Your task to perform on an android device: star an email in the gmail app Image 0: 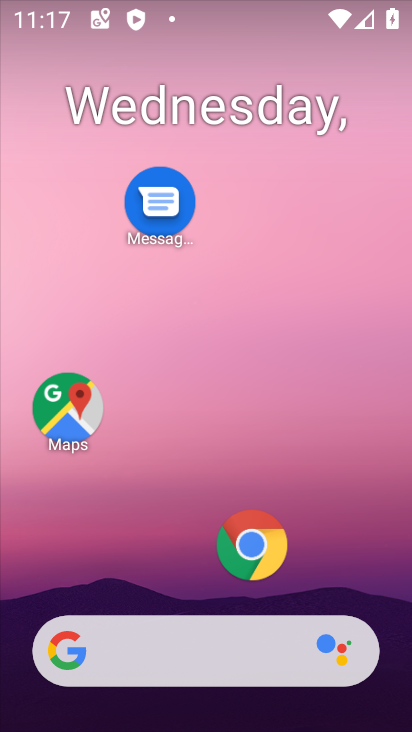
Step 0: drag from (193, 594) to (206, 243)
Your task to perform on an android device: star an email in the gmail app Image 1: 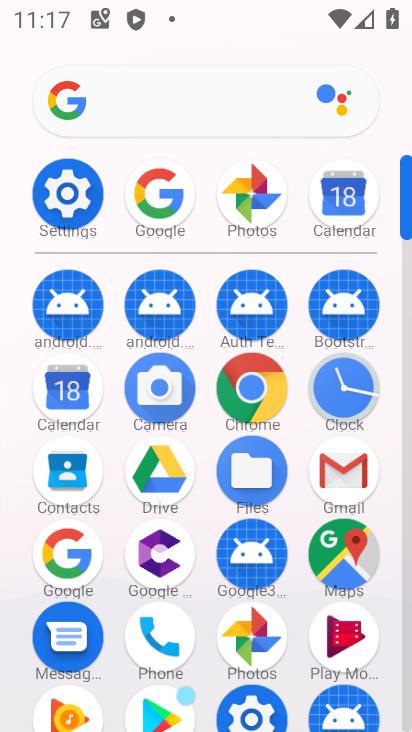
Step 1: click (346, 487)
Your task to perform on an android device: star an email in the gmail app Image 2: 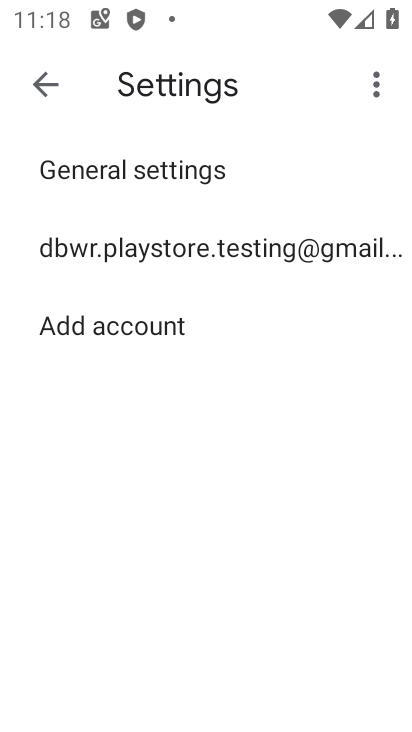
Step 2: press home button
Your task to perform on an android device: star an email in the gmail app Image 3: 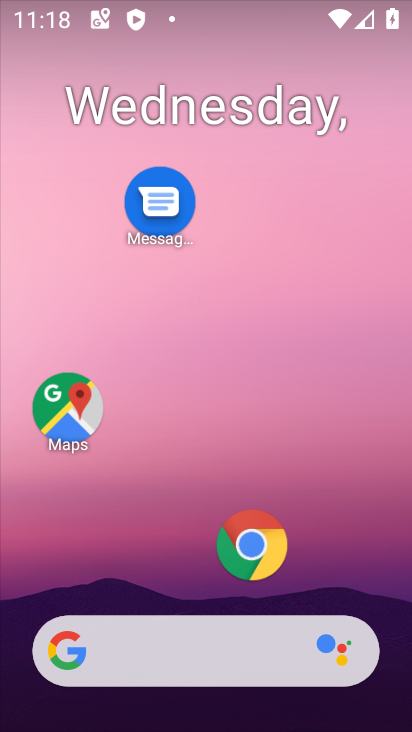
Step 3: drag from (172, 583) to (172, 270)
Your task to perform on an android device: star an email in the gmail app Image 4: 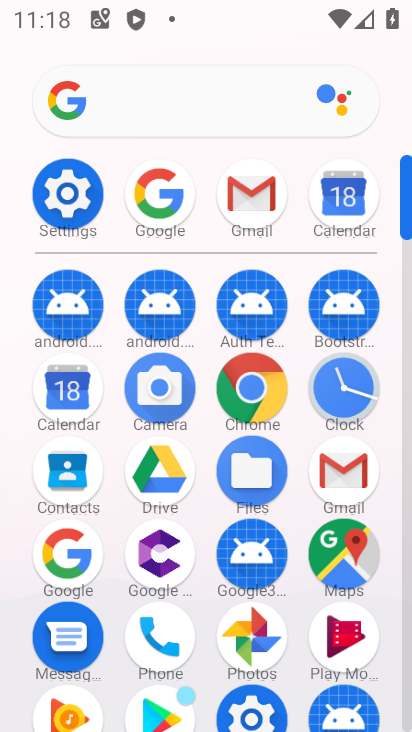
Step 4: click (325, 479)
Your task to perform on an android device: star an email in the gmail app Image 5: 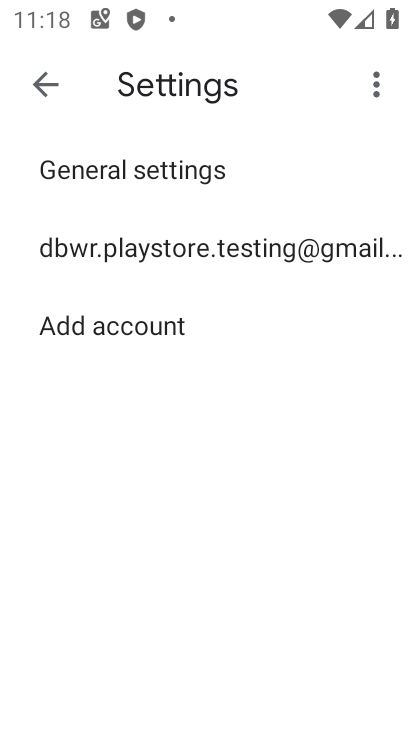
Step 5: click (131, 256)
Your task to perform on an android device: star an email in the gmail app Image 6: 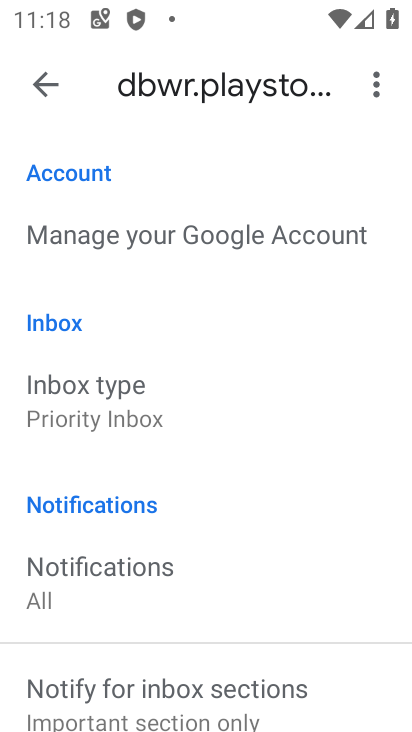
Step 6: click (34, 75)
Your task to perform on an android device: star an email in the gmail app Image 7: 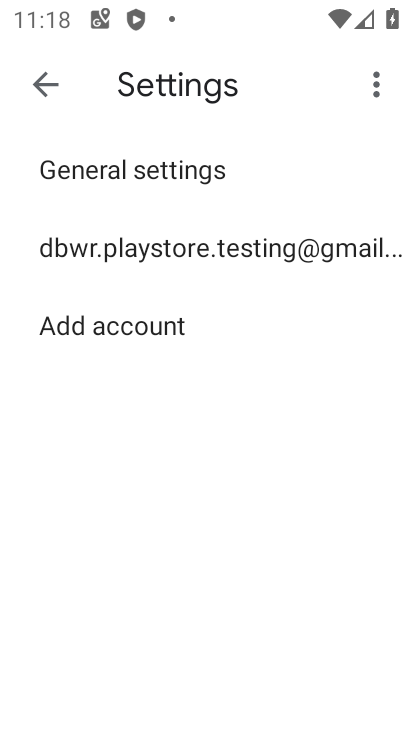
Step 7: click (34, 75)
Your task to perform on an android device: star an email in the gmail app Image 8: 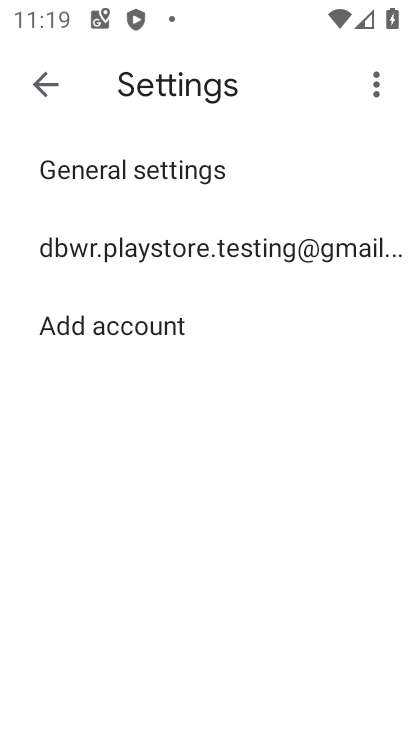
Step 8: click (35, 79)
Your task to perform on an android device: star an email in the gmail app Image 9: 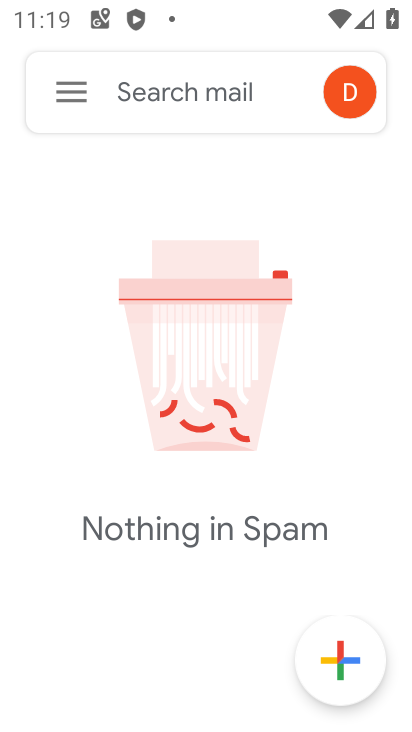
Step 9: task complete